Your task to perform on an android device: turn pop-ups on in chrome Image 0: 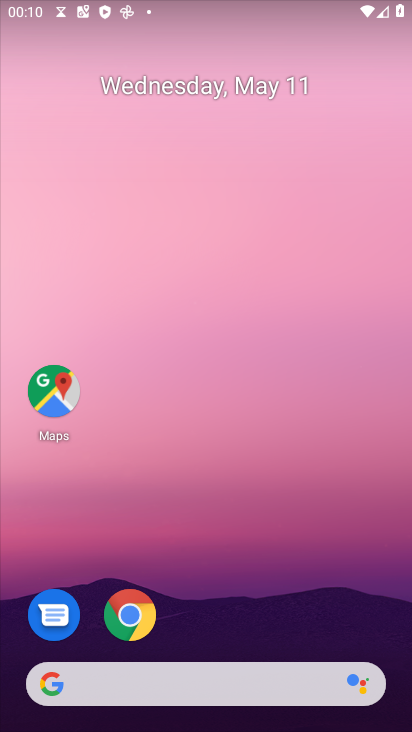
Step 0: click (128, 615)
Your task to perform on an android device: turn pop-ups on in chrome Image 1: 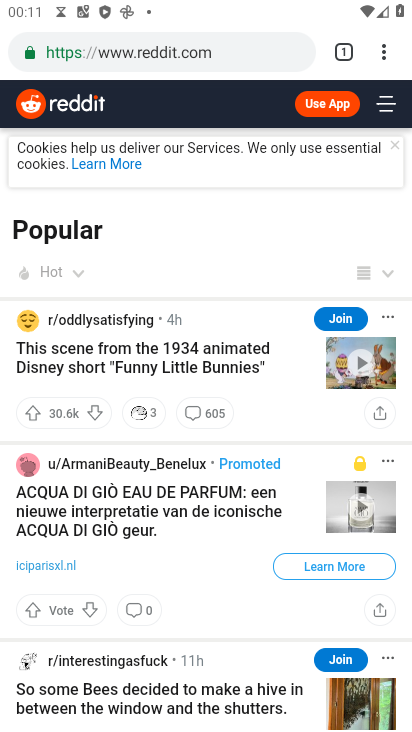
Step 1: click (380, 53)
Your task to perform on an android device: turn pop-ups on in chrome Image 2: 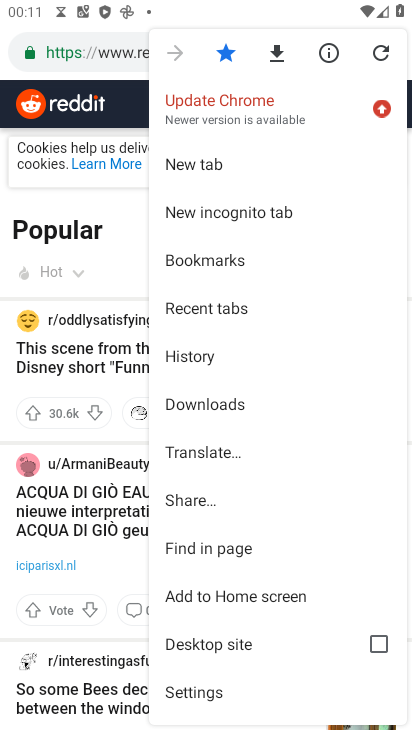
Step 2: drag from (231, 631) to (249, 549)
Your task to perform on an android device: turn pop-ups on in chrome Image 3: 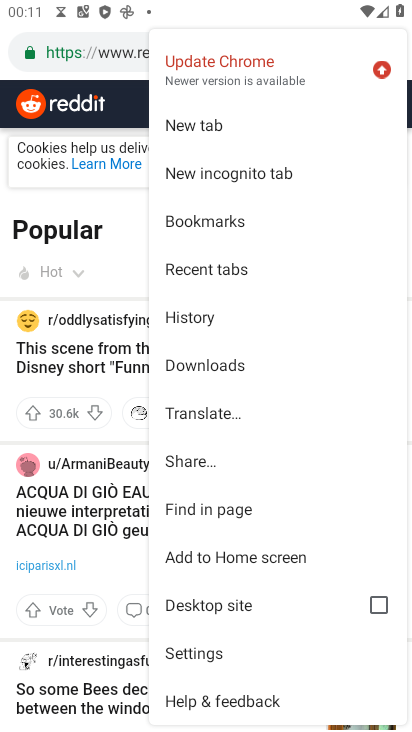
Step 3: click (207, 648)
Your task to perform on an android device: turn pop-ups on in chrome Image 4: 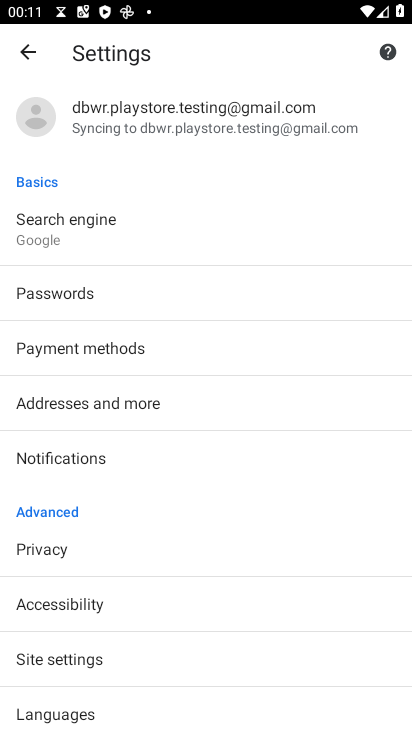
Step 4: drag from (179, 654) to (222, 563)
Your task to perform on an android device: turn pop-ups on in chrome Image 5: 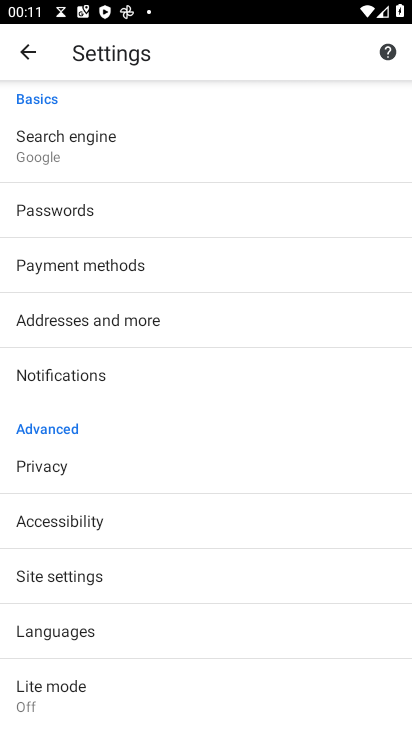
Step 5: drag from (144, 633) to (240, 518)
Your task to perform on an android device: turn pop-ups on in chrome Image 6: 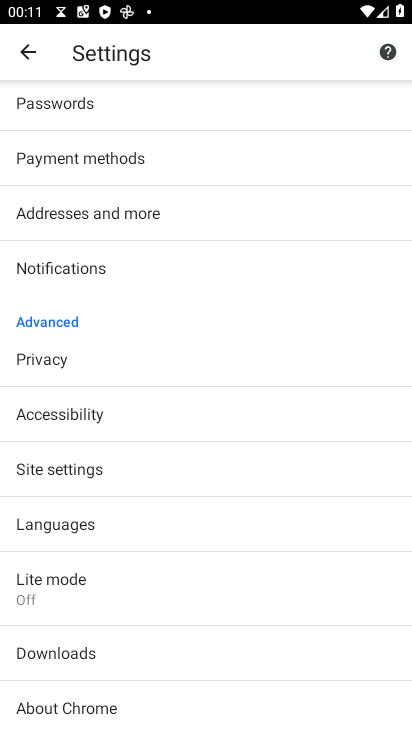
Step 6: click (85, 472)
Your task to perform on an android device: turn pop-ups on in chrome Image 7: 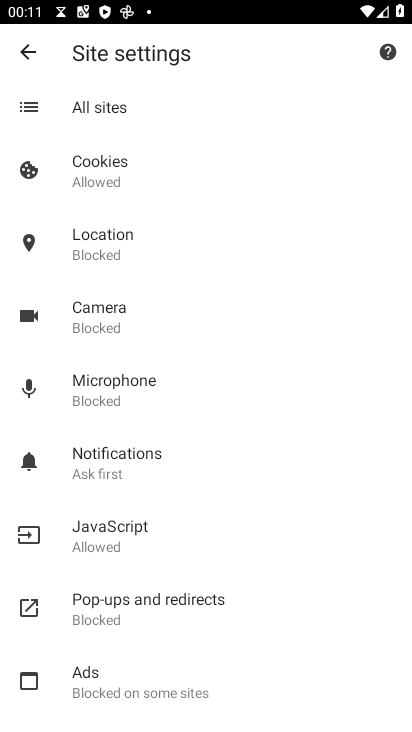
Step 7: click (124, 612)
Your task to perform on an android device: turn pop-ups on in chrome Image 8: 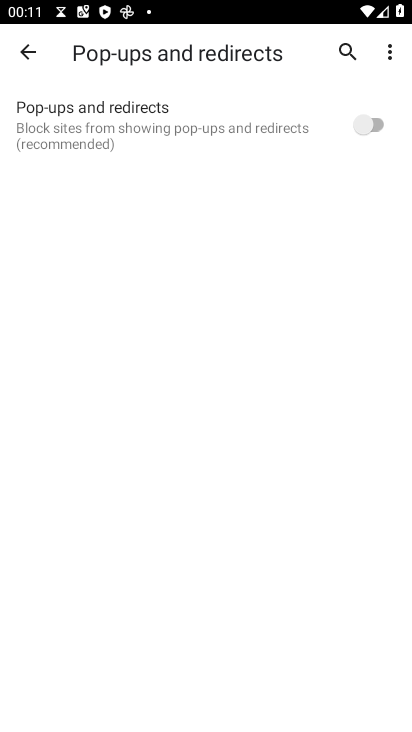
Step 8: click (365, 120)
Your task to perform on an android device: turn pop-ups on in chrome Image 9: 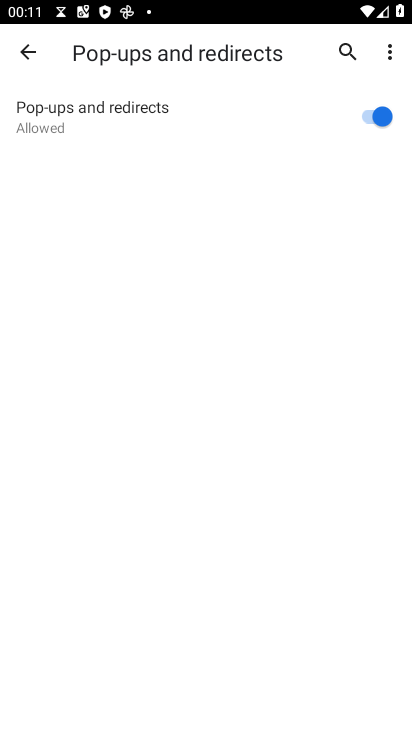
Step 9: task complete